Your task to perform on an android device: turn on javascript in the chrome app Image 0: 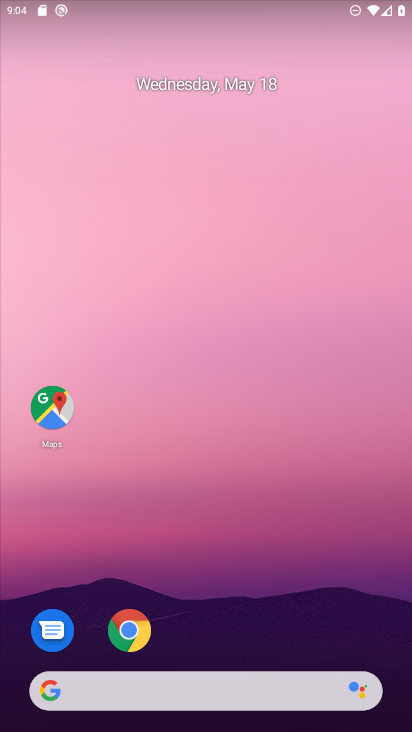
Step 0: click (128, 625)
Your task to perform on an android device: turn on javascript in the chrome app Image 1: 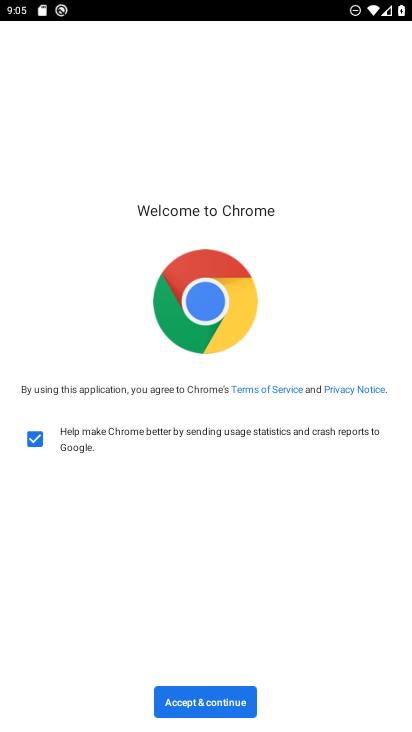
Step 1: click (225, 703)
Your task to perform on an android device: turn on javascript in the chrome app Image 2: 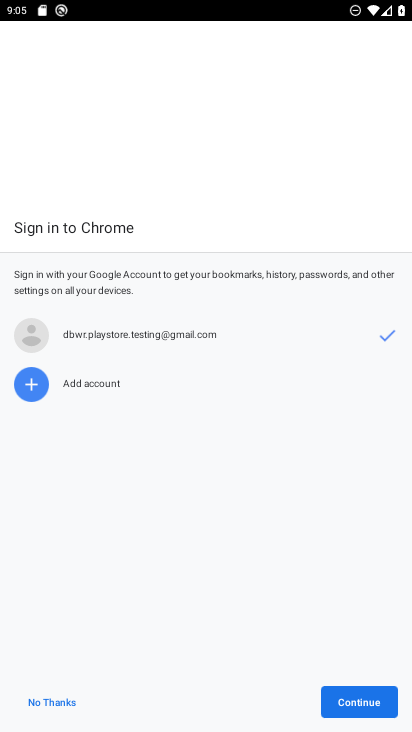
Step 2: click (363, 690)
Your task to perform on an android device: turn on javascript in the chrome app Image 3: 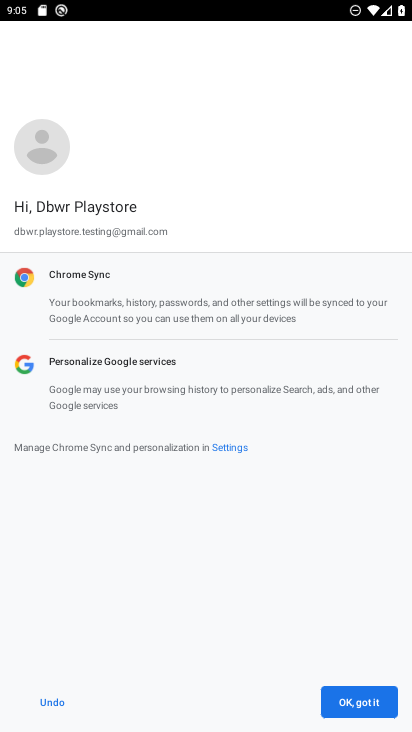
Step 3: click (364, 691)
Your task to perform on an android device: turn on javascript in the chrome app Image 4: 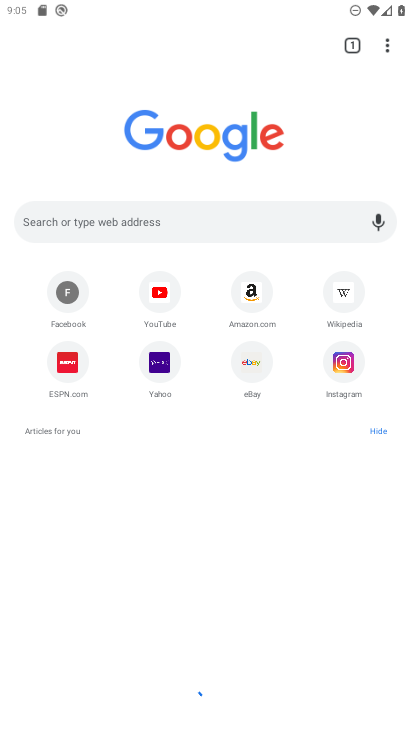
Step 4: click (388, 54)
Your task to perform on an android device: turn on javascript in the chrome app Image 5: 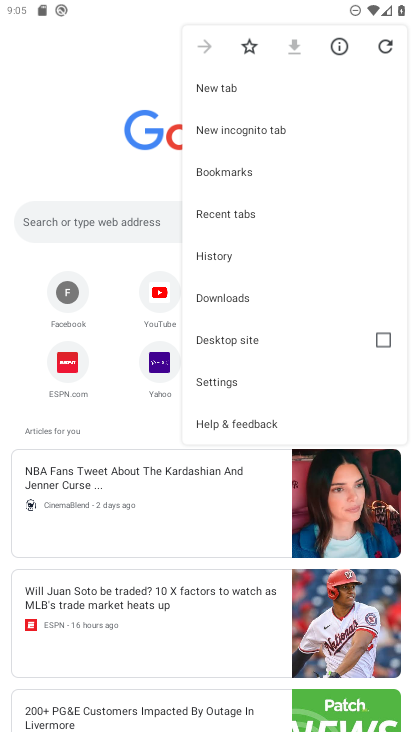
Step 5: click (208, 384)
Your task to perform on an android device: turn on javascript in the chrome app Image 6: 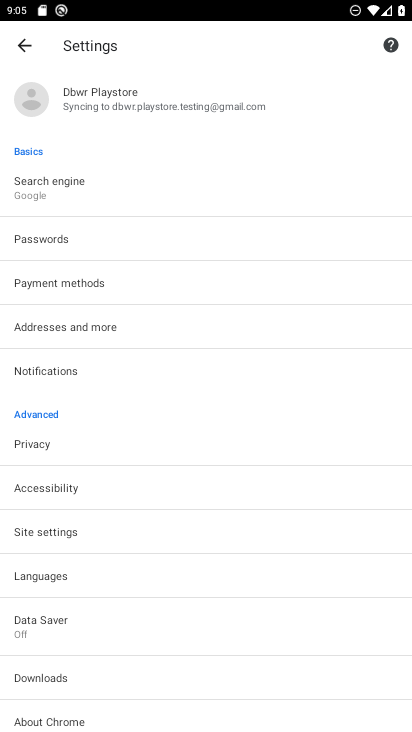
Step 6: drag from (57, 649) to (30, 218)
Your task to perform on an android device: turn on javascript in the chrome app Image 7: 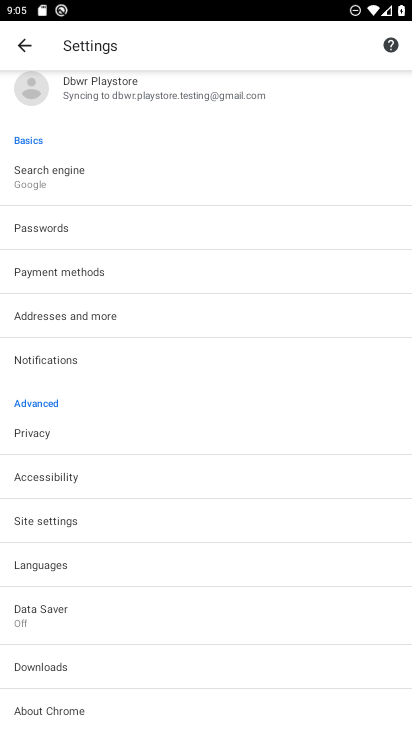
Step 7: click (44, 515)
Your task to perform on an android device: turn on javascript in the chrome app Image 8: 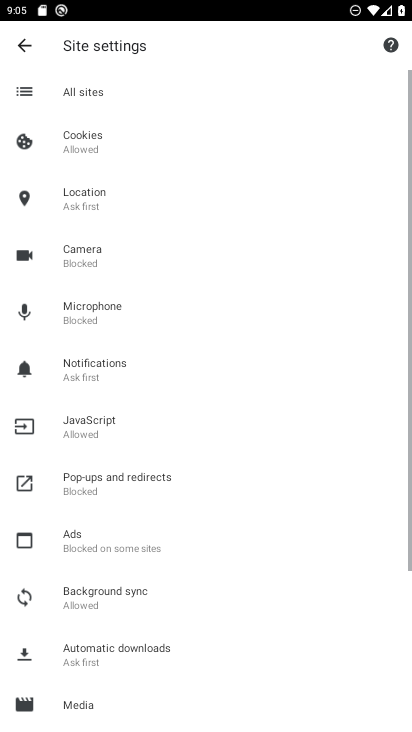
Step 8: click (113, 406)
Your task to perform on an android device: turn on javascript in the chrome app Image 9: 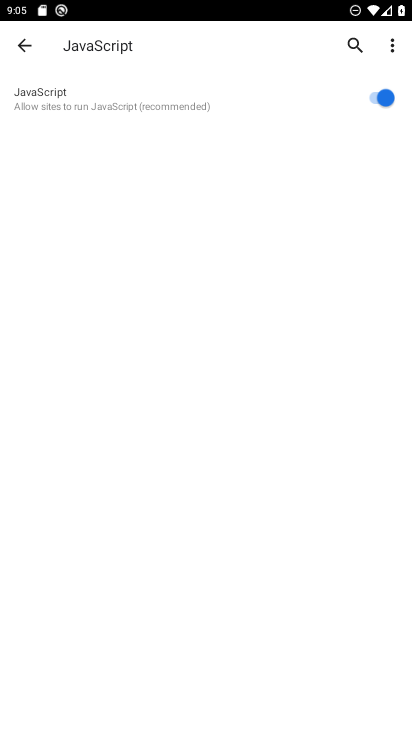
Step 9: task complete